Your task to perform on an android device: Clear the shopping cart on walmart.com. Image 0: 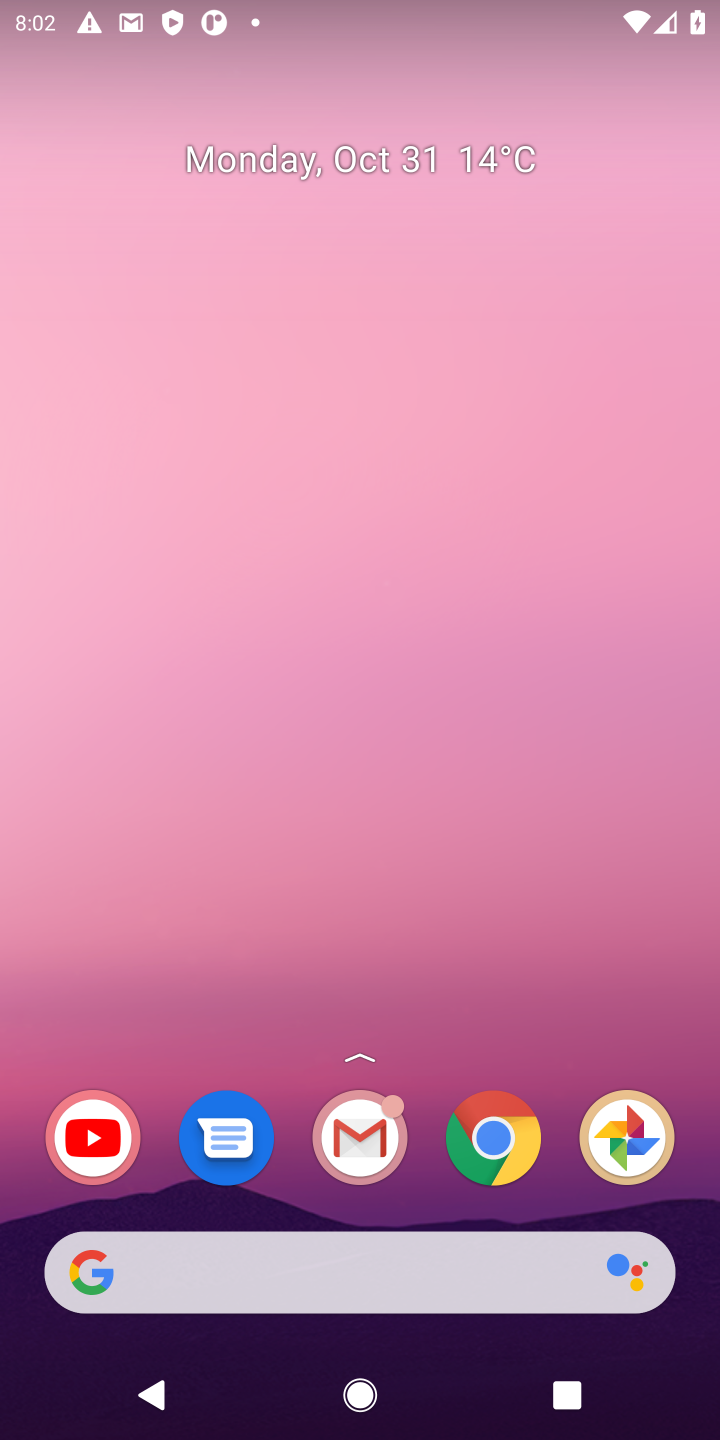
Step 0: click (513, 1152)
Your task to perform on an android device: Clear the shopping cart on walmart.com. Image 1: 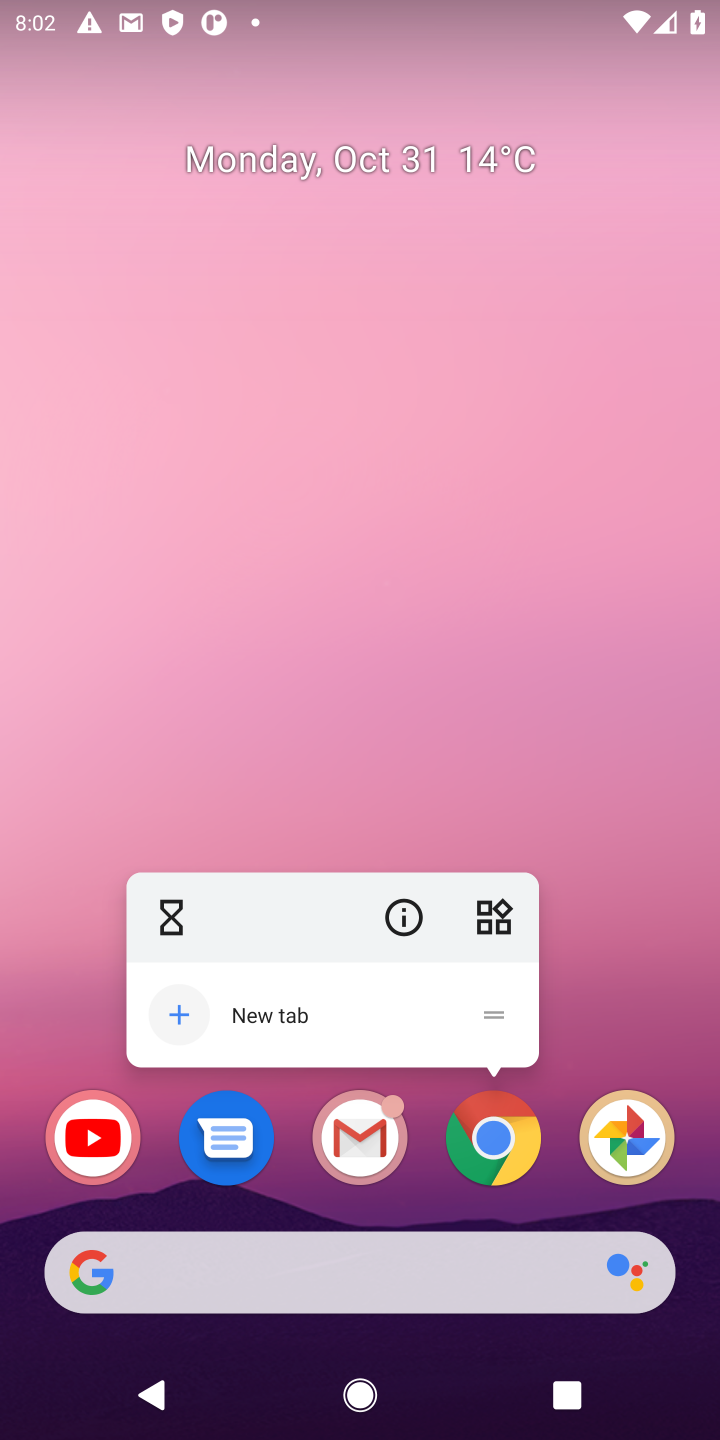
Step 1: click (497, 1123)
Your task to perform on an android device: Clear the shopping cart on walmart.com. Image 2: 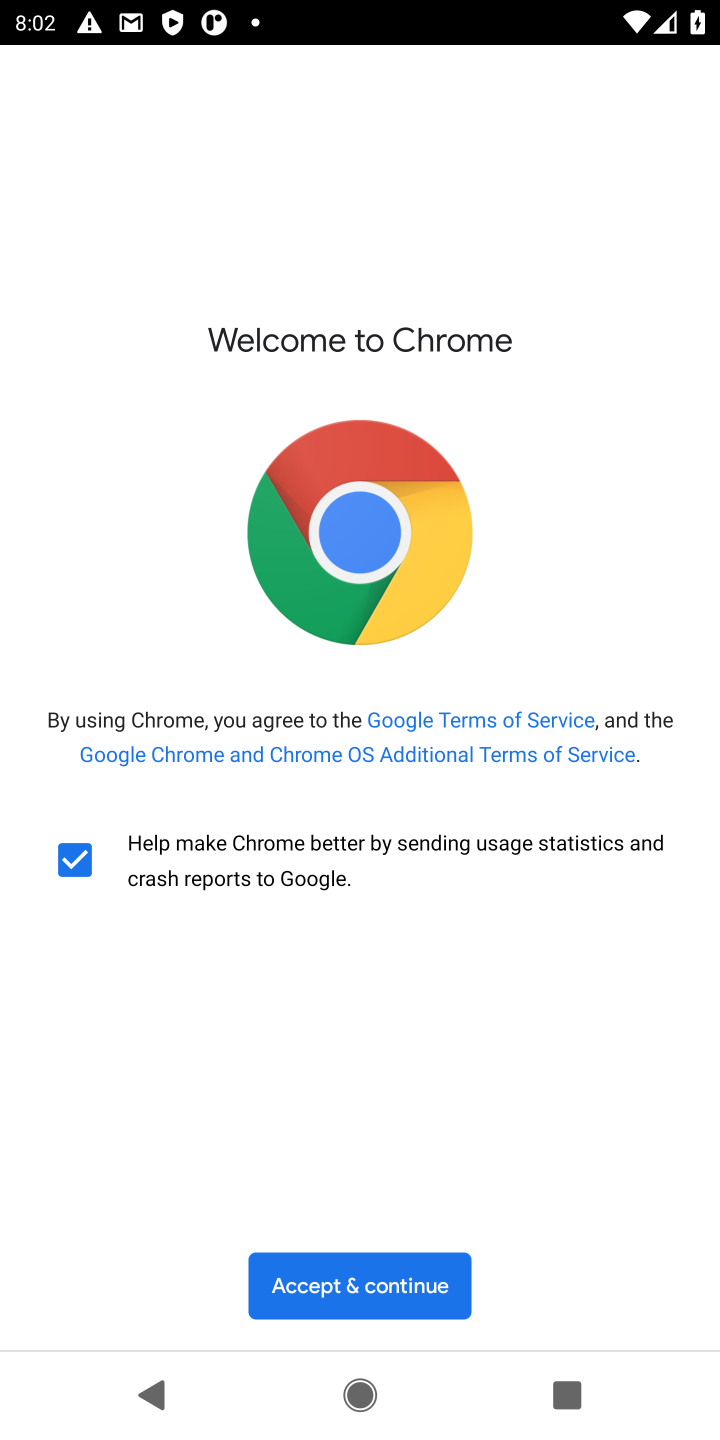
Step 2: click (303, 1294)
Your task to perform on an android device: Clear the shopping cart on walmart.com. Image 3: 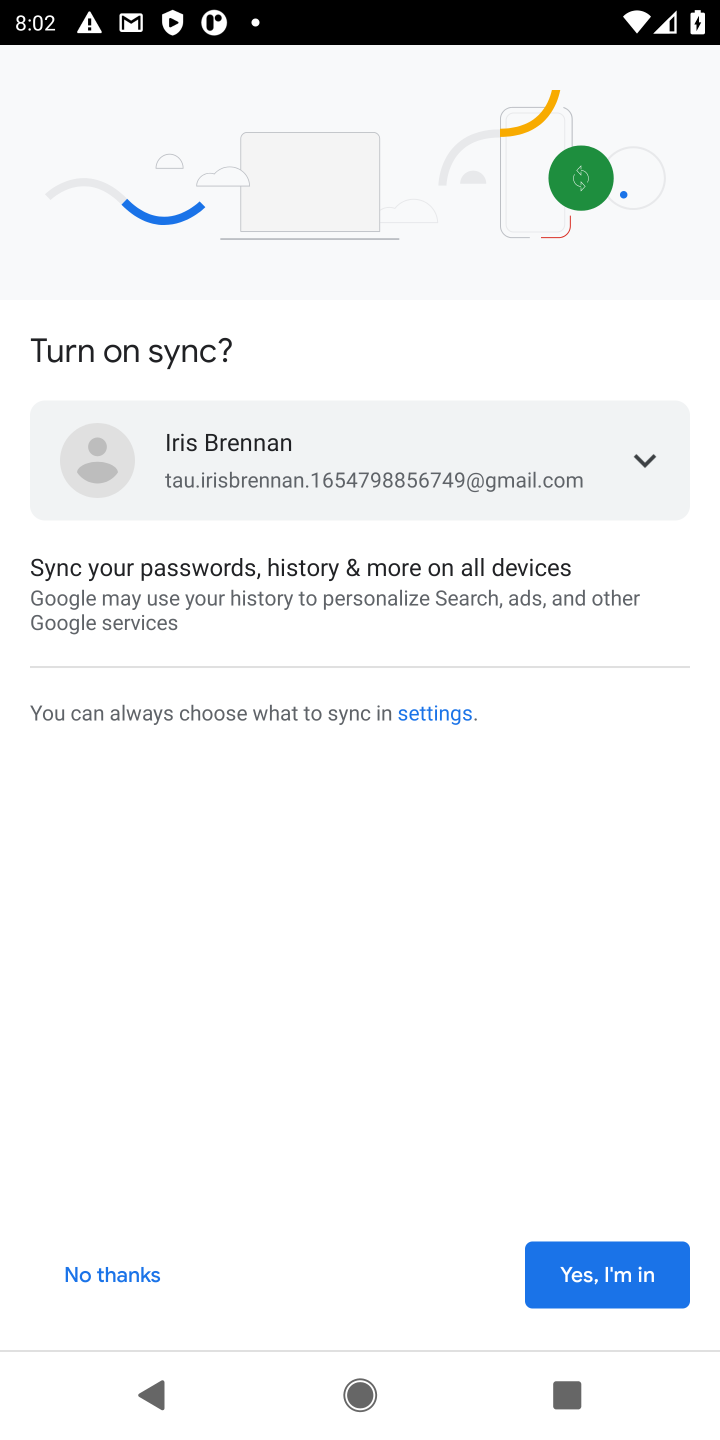
Step 3: click (568, 1284)
Your task to perform on an android device: Clear the shopping cart on walmart.com. Image 4: 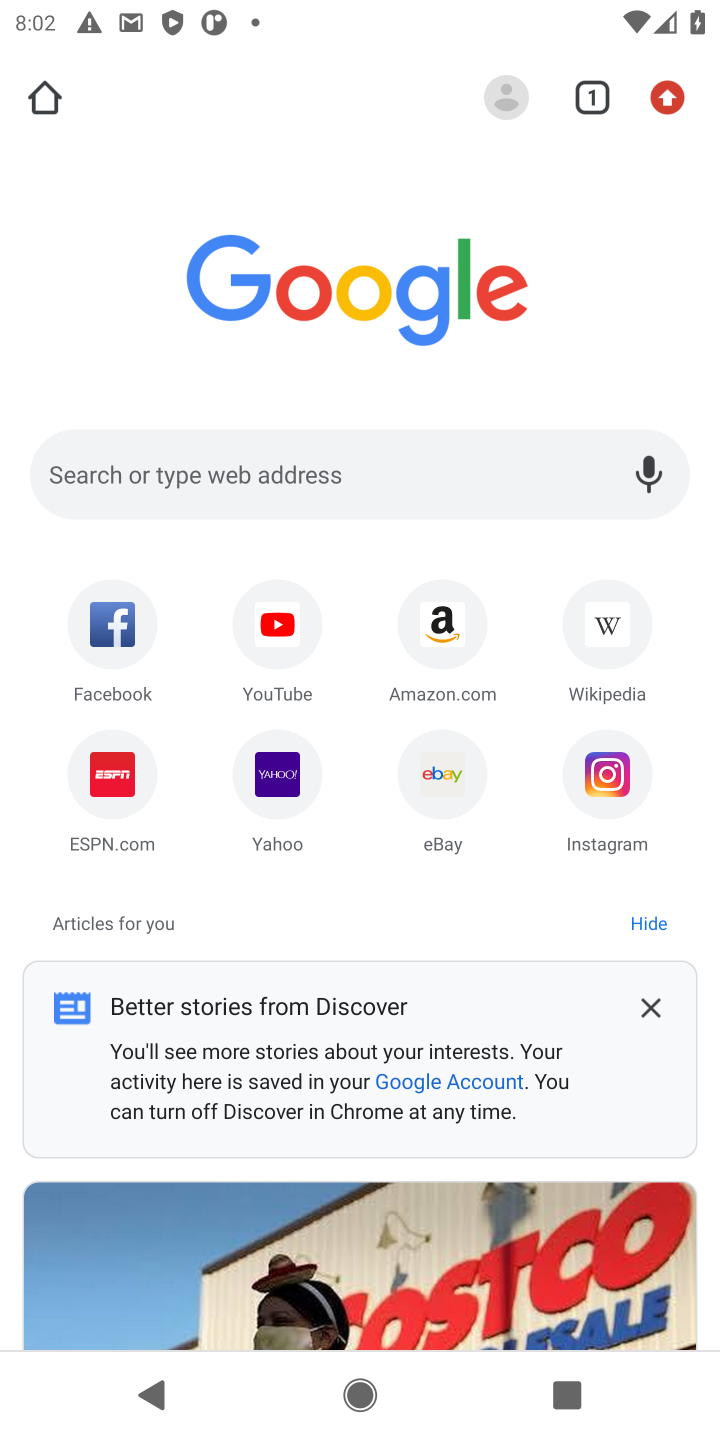
Step 4: click (258, 457)
Your task to perform on an android device: Clear the shopping cart on walmart.com. Image 5: 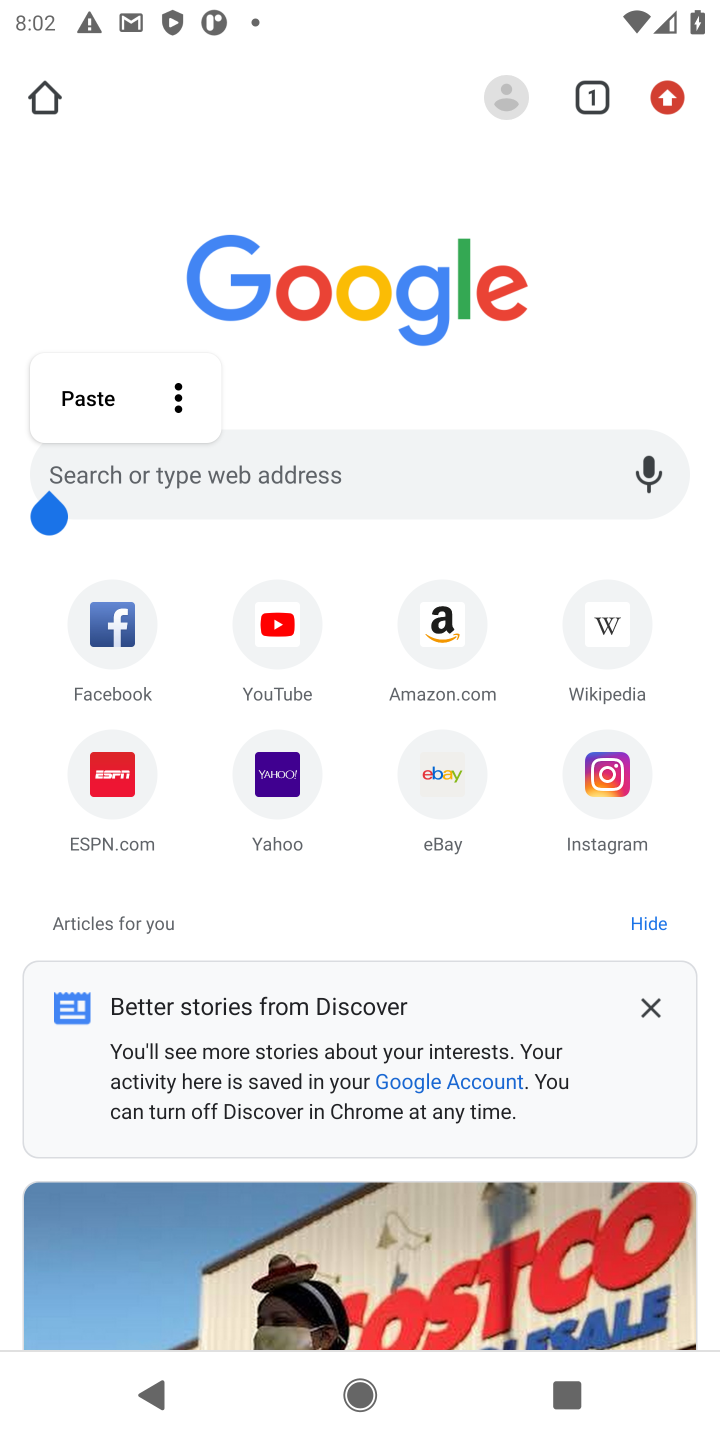
Step 5: click (275, 464)
Your task to perform on an android device: Clear the shopping cart on walmart.com. Image 6: 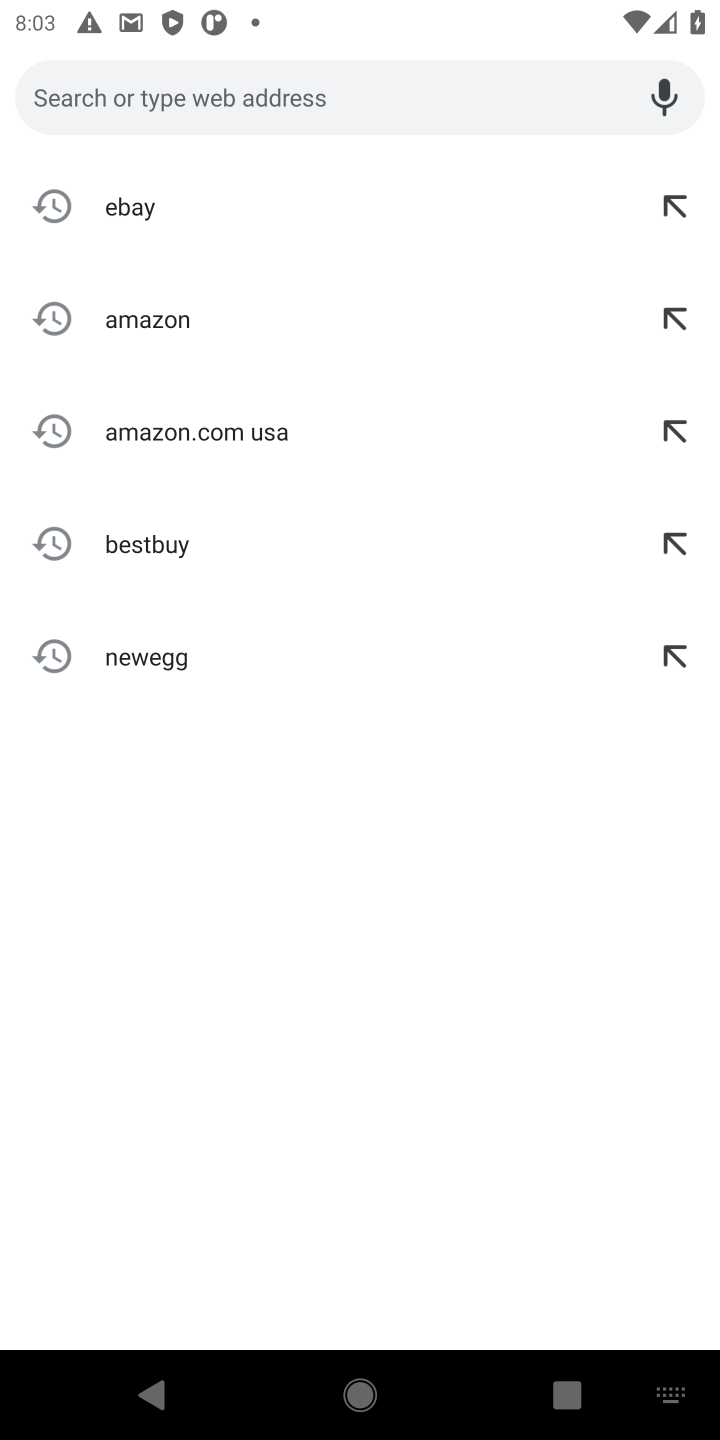
Step 6: type "walmart.com"
Your task to perform on an android device: Clear the shopping cart on walmart.com. Image 7: 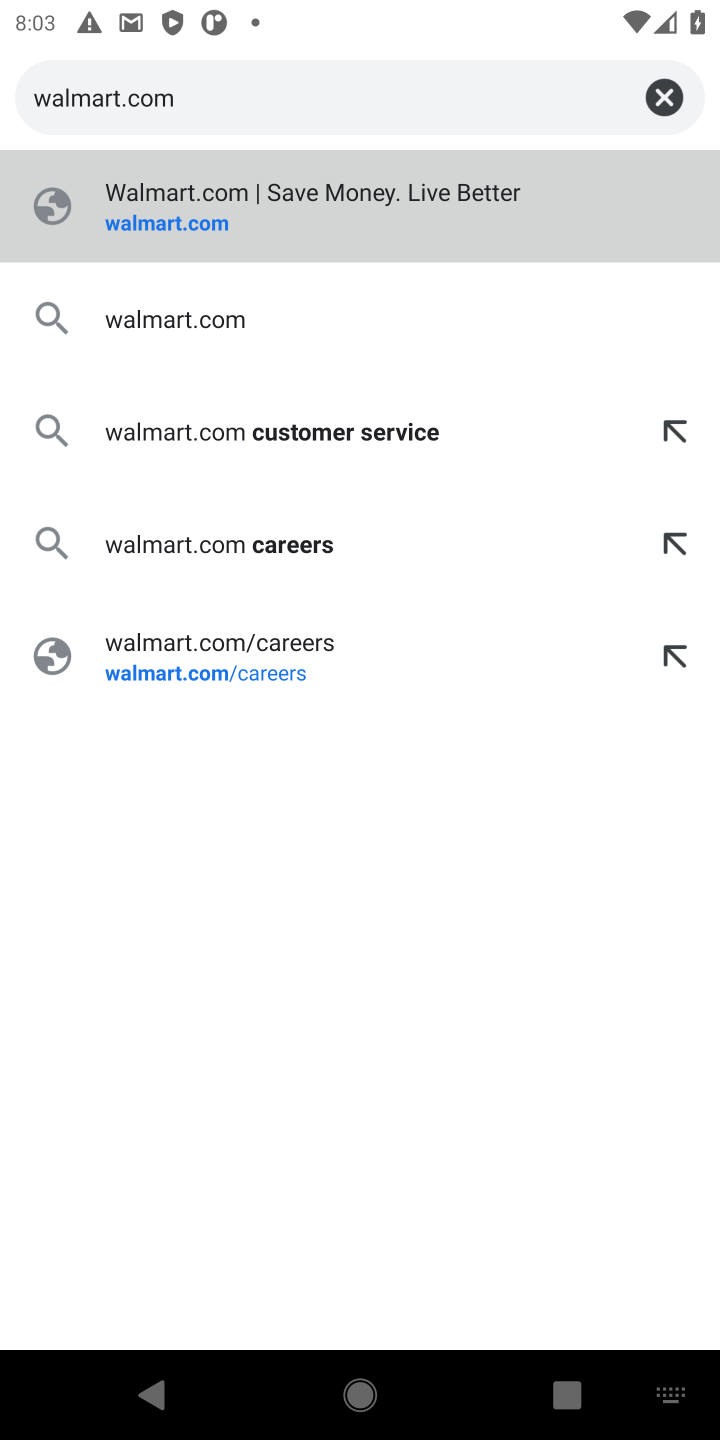
Step 7: type ""
Your task to perform on an android device: Clear the shopping cart on walmart.com. Image 8: 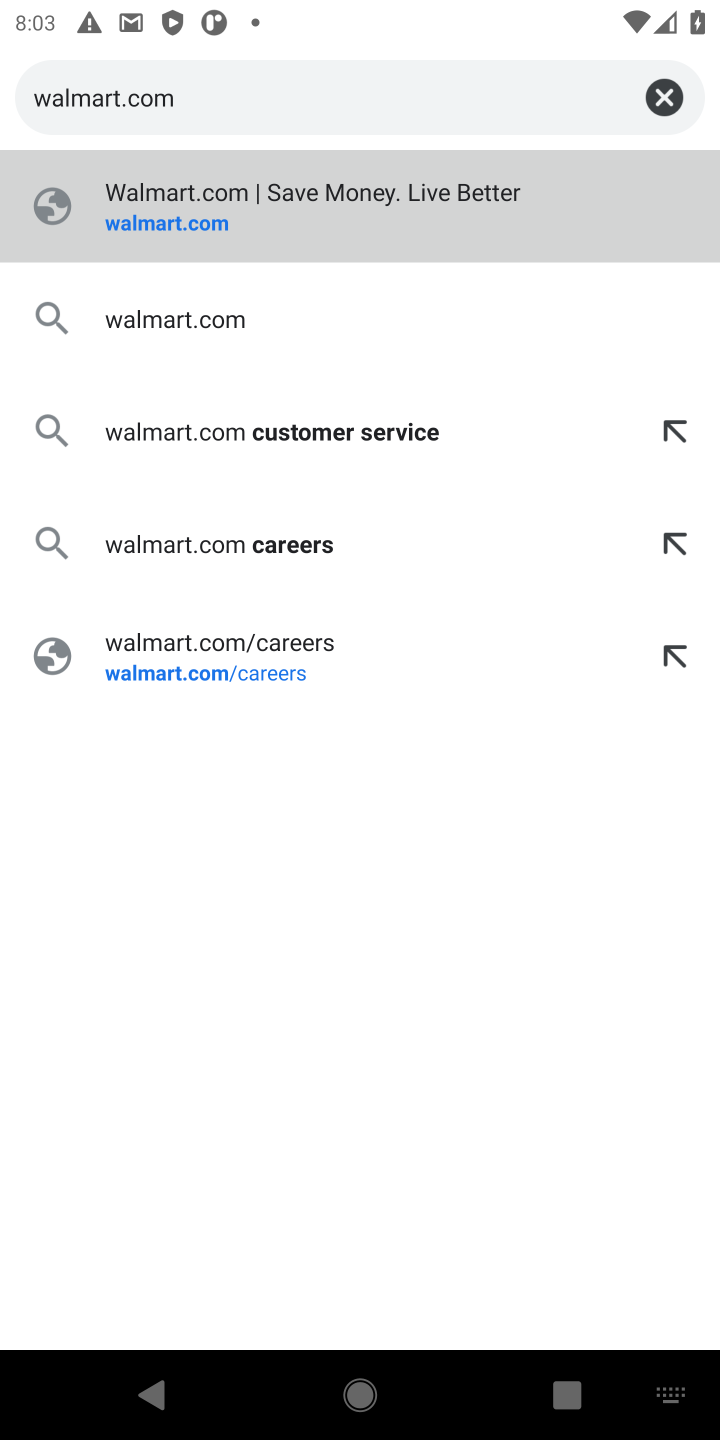
Step 8: click (136, 206)
Your task to perform on an android device: Clear the shopping cart on walmart.com. Image 9: 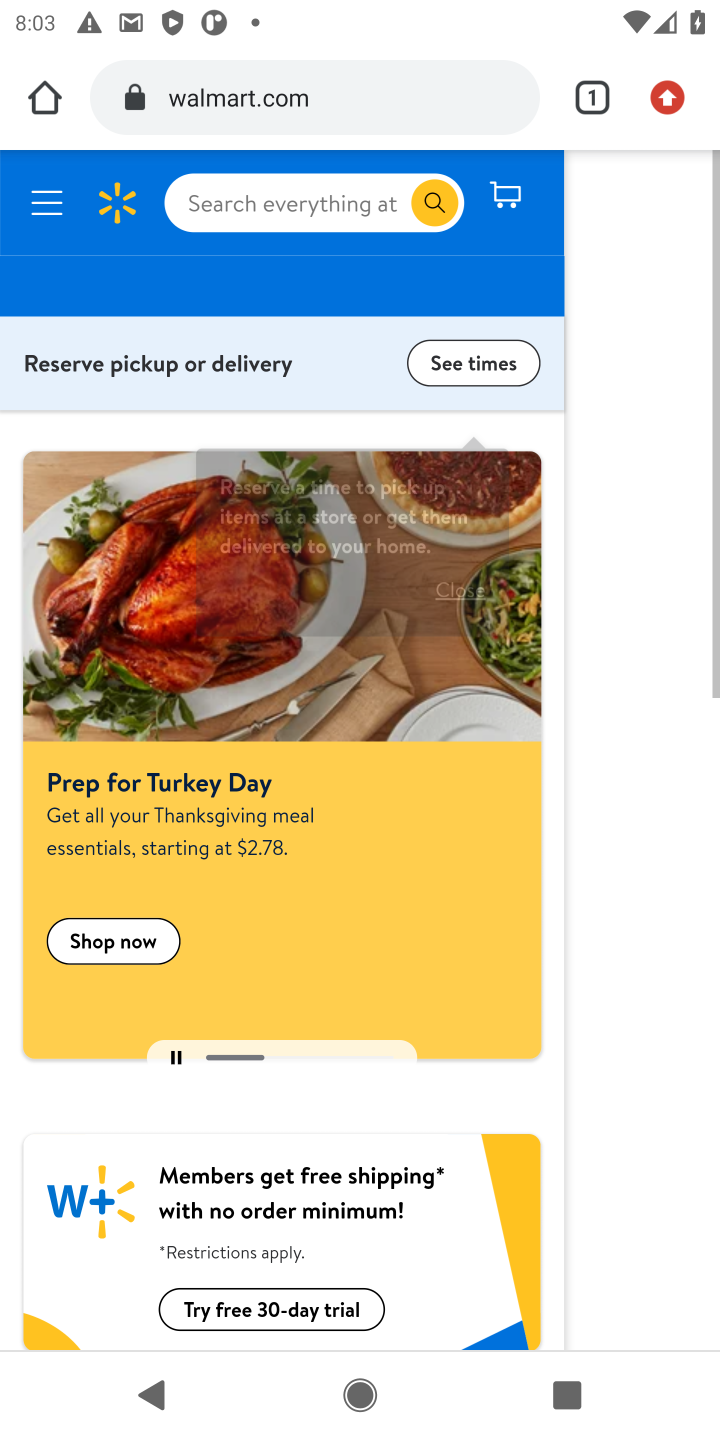
Step 9: click (355, 211)
Your task to perform on an android device: Clear the shopping cart on walmart.com. Image 10: 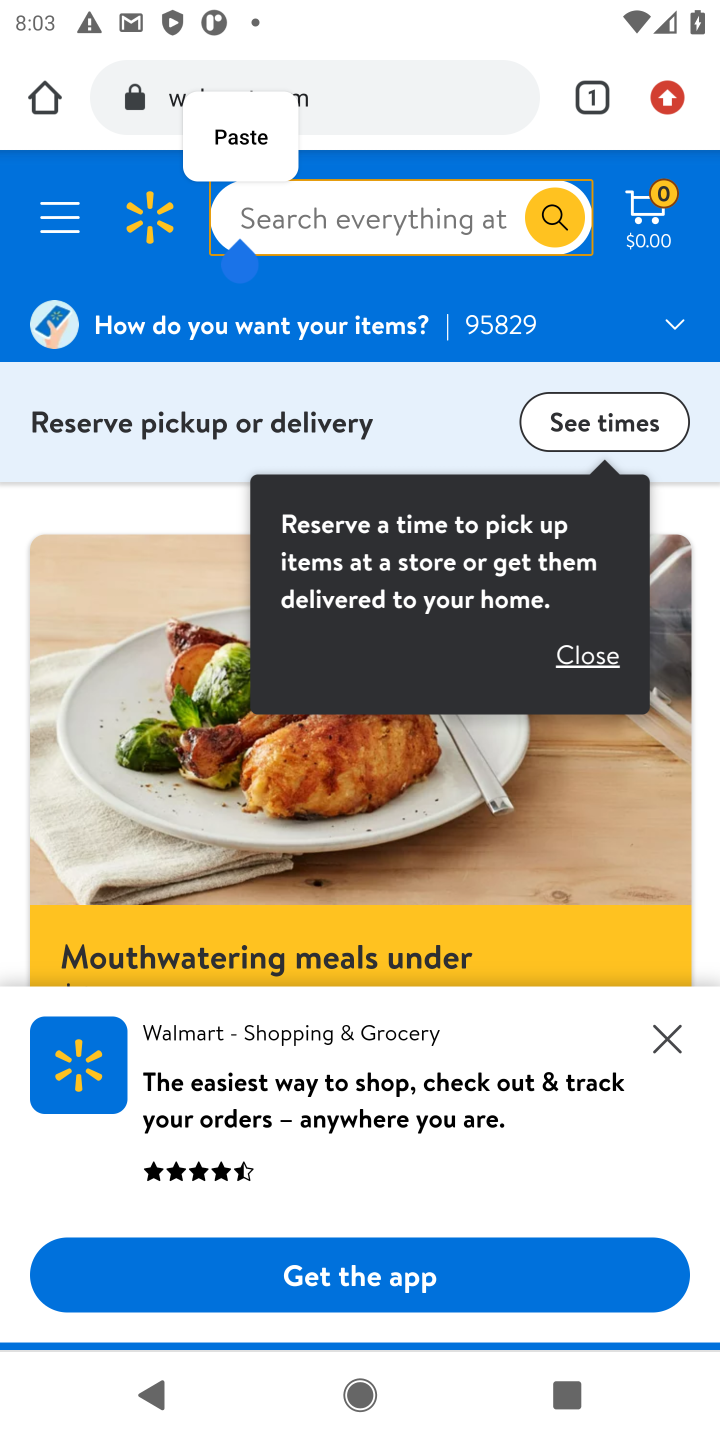
Step 10: click (669, 1043)
Your task to perform on an android device: Clear the shopping cart on walmart.com. Image 11: 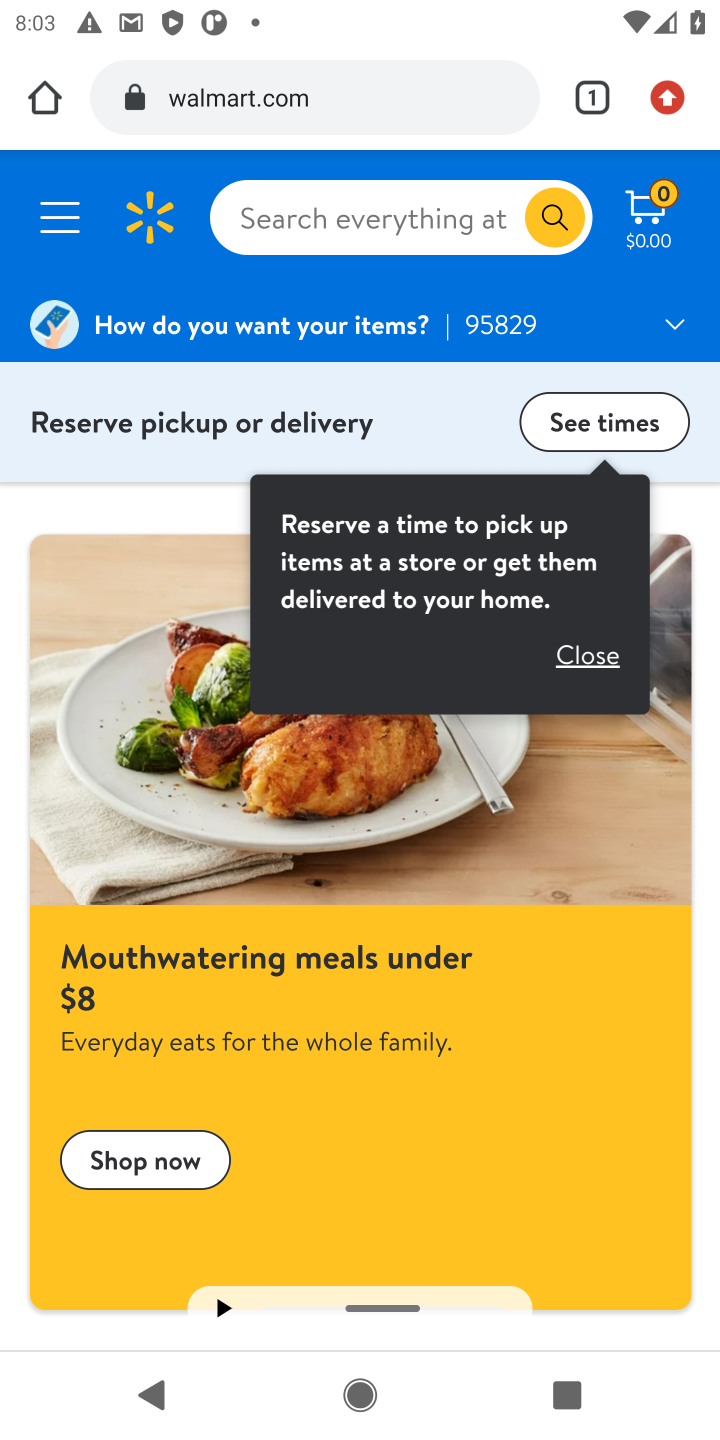
Step 11: click (669, 101)
Your task to perform on an android device: Clear the shopping cart on walmart.com. Image 12: 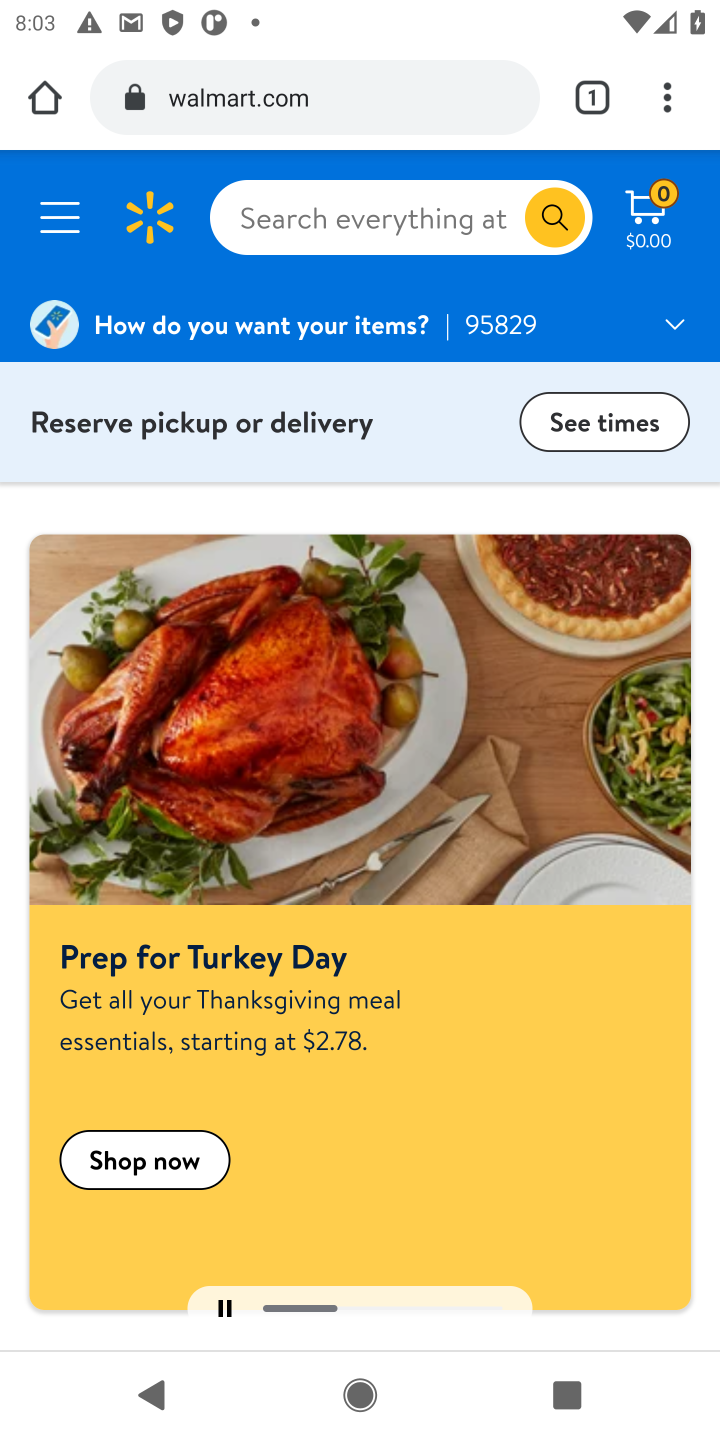
Step 12: click (667, 98)
Your task to perform on an android device: Clear the shopping cart on walmart.com. Image 13: 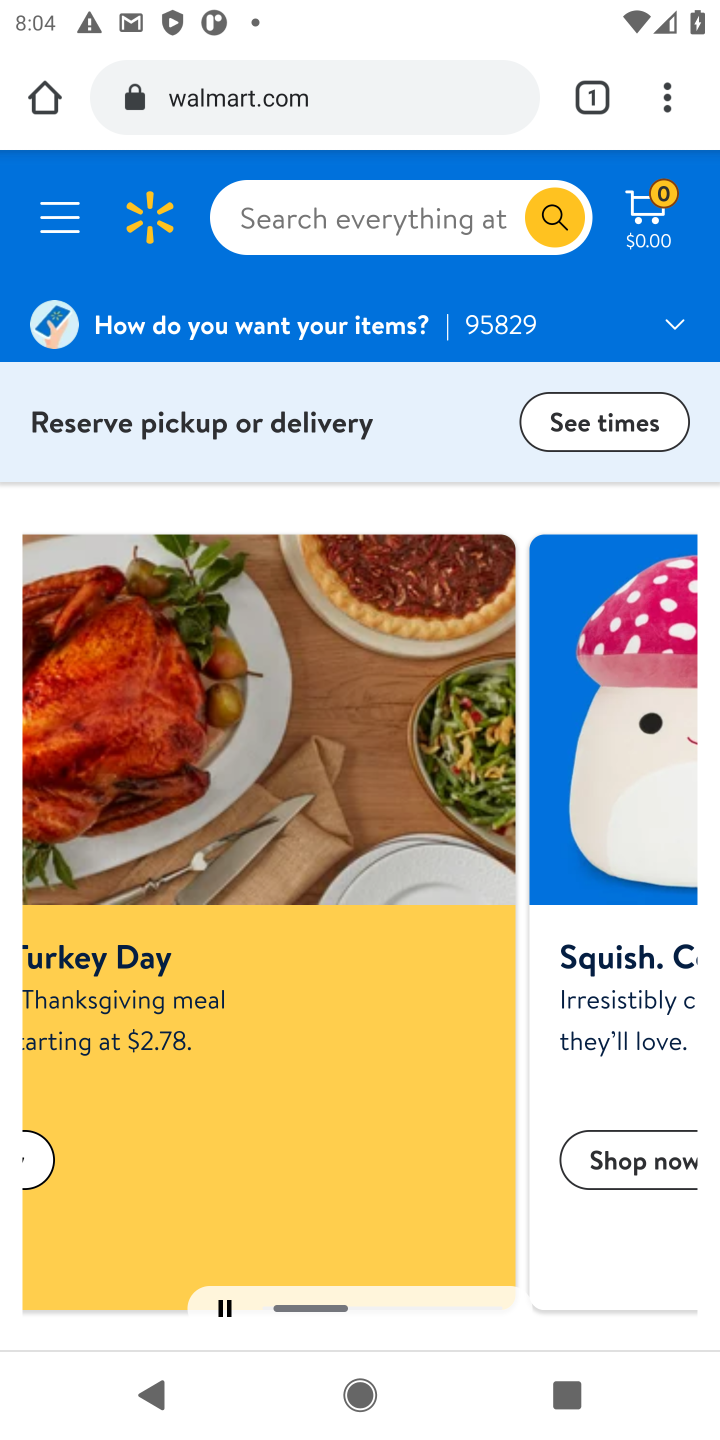
Step 13: click (661, 211)
Your task to perform on an android device: Clear the shopping cart on walmart.com. Image 14: 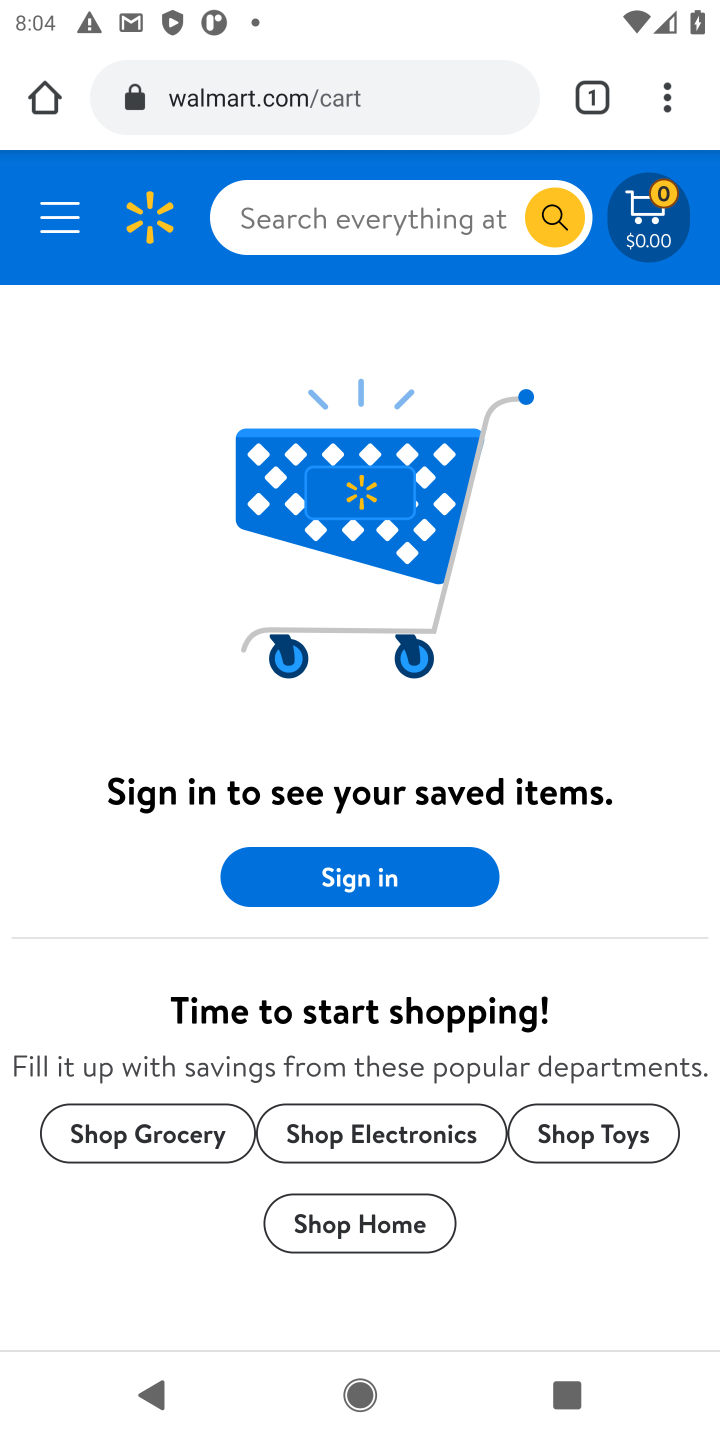
Step 14: task complete